Your task to perform on an android device: turn off sleep mode Image 0: 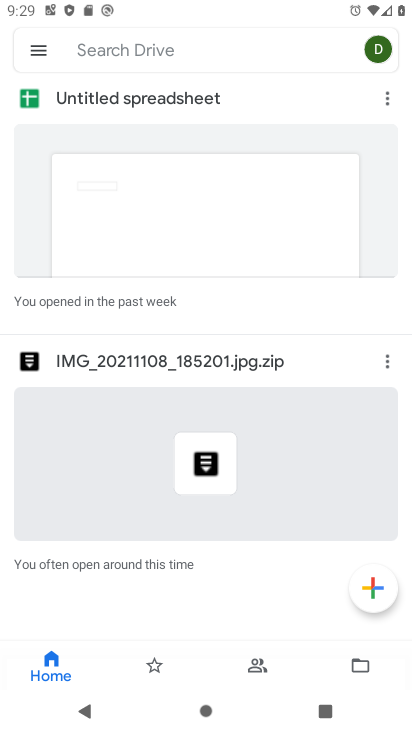
Step 0: press home button
Your task to perform on an android device: turn off sleep mode Image 1: 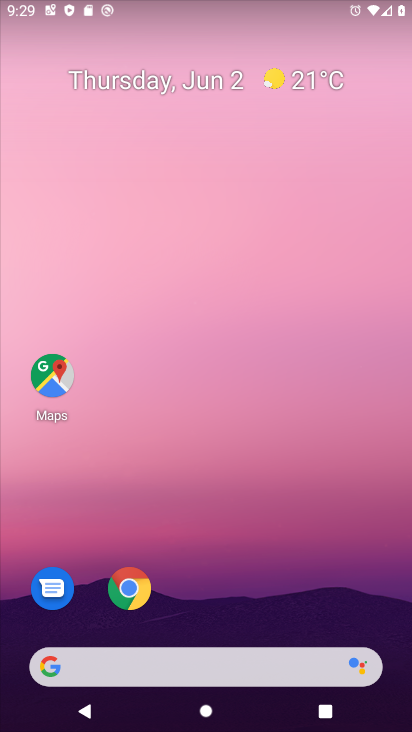
Step 1: drag from (211, 657) to (292, 269)
Your task to perform on an android device: turn off sleep mode Image 2: 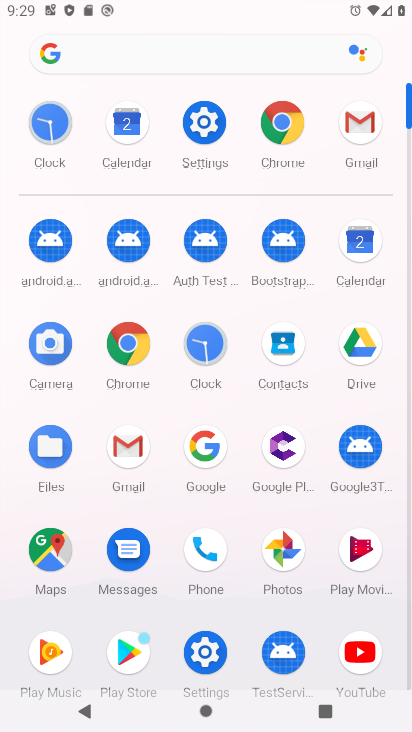
Step 2: click (204, 116)
Your task to perform on an android device: turn off sleep mode Image 3: 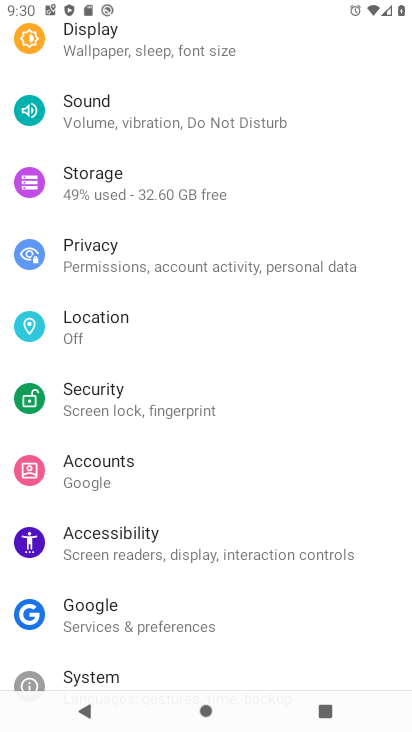
Step 3: click (165, 40)
Your task to perform on an android device: turn off sleep mode Image 4: 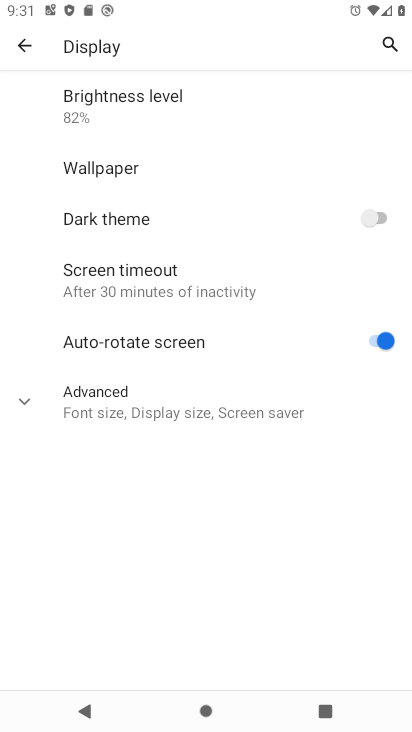
Step 4: click (144, 382)
Your task to perform on an android device: turn off sleep mode Image 5: 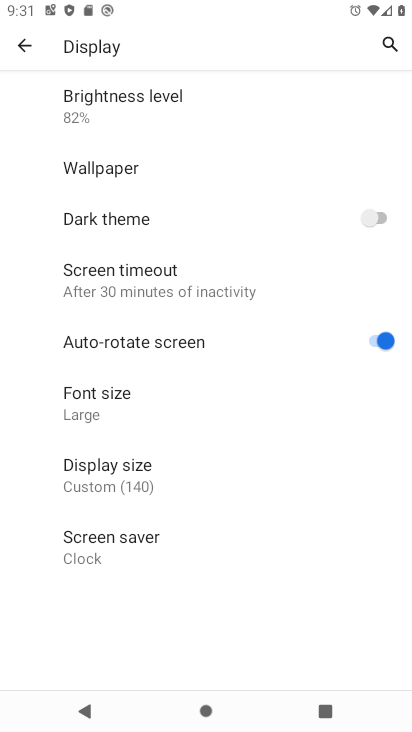
Step 5: task complete